Your task to perform on an android device: turn off improve location accuracy Image 0: 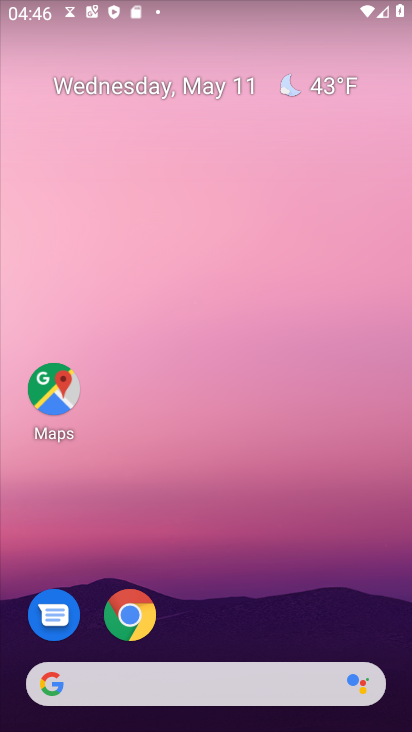
Step 0: drag from (269, 362) to (267, 0)
Your task to perform on an android device: turn off improve location accuracy Image 1: 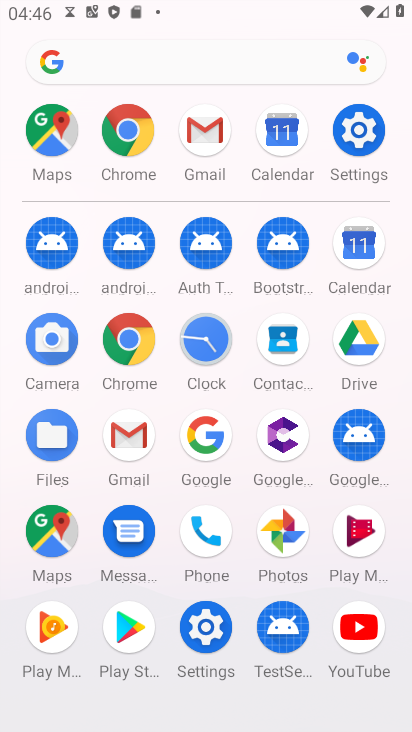
Step 1: drag from (19, 547) to (10, 223)
Your task to perform on an android device: turn off improve location accuracy Image 2: 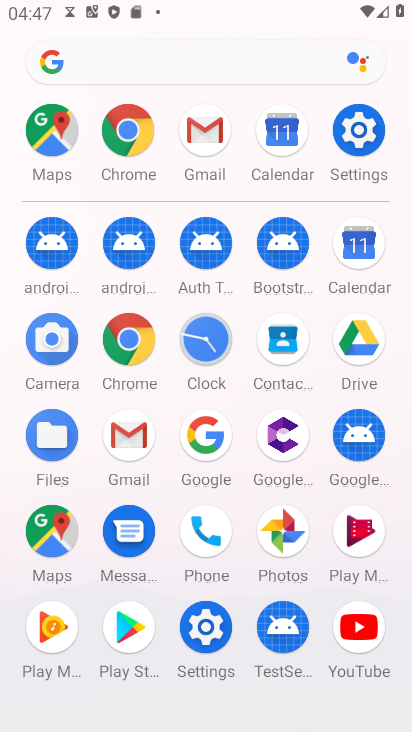
Step 2: drag from (11, 482) to (20, 335)
Your task to perform on an android device: turn off improve location accuracy Image 3: 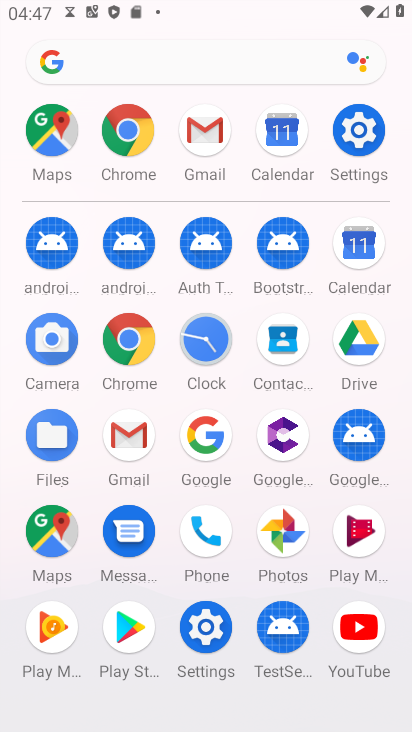
Step 3: drag from (7, 514) to (8, 269)
Your task to perform on an android device: turn off improve location accuracy Image 4: 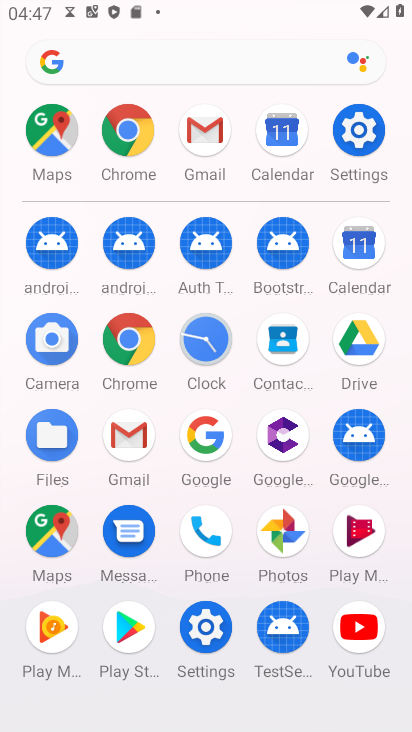
Step 4: drag from (17, 521) to (36, 246)
Your task to perform on an android device: turn off improve location accuracy Image 5: 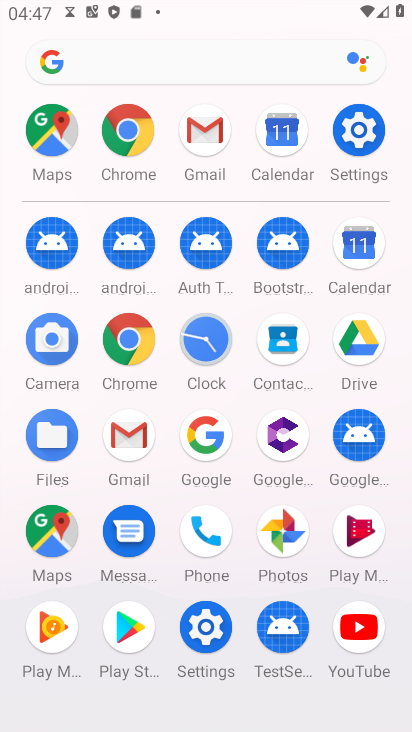
Step 5: drag from (14, 505) to (22, 289)
Your task to perform on an android device: turn off improve location accuracy Image 6: 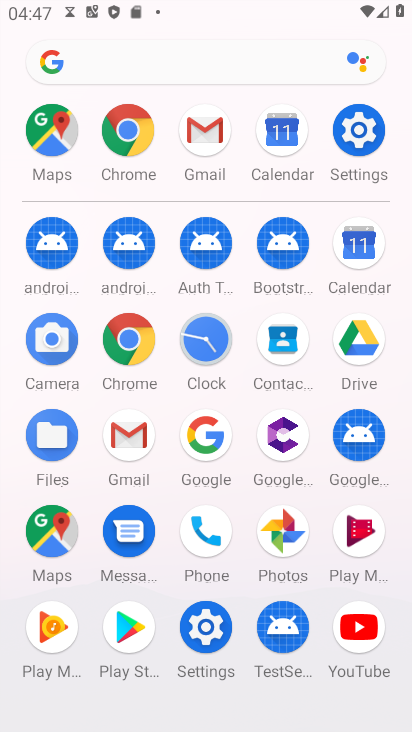
Step 6: drag from (12, 561) to (28, 310)
Your task to perform on an android device: turn off improve location accuracy Image 7: 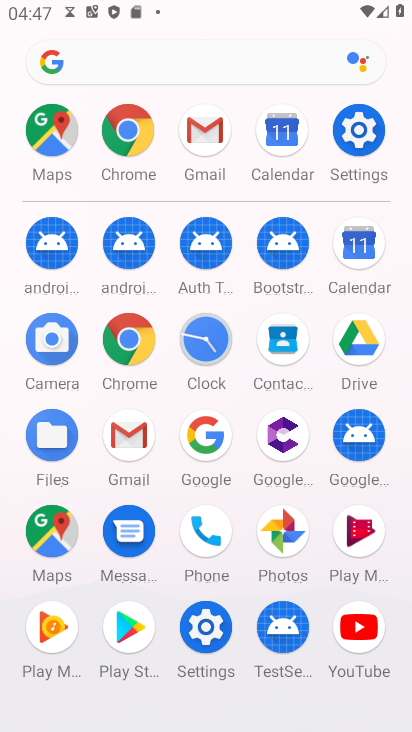
Step 7: click (203, 624)
Your task to perform on an android device: turn off improve location accuracy Image 8: 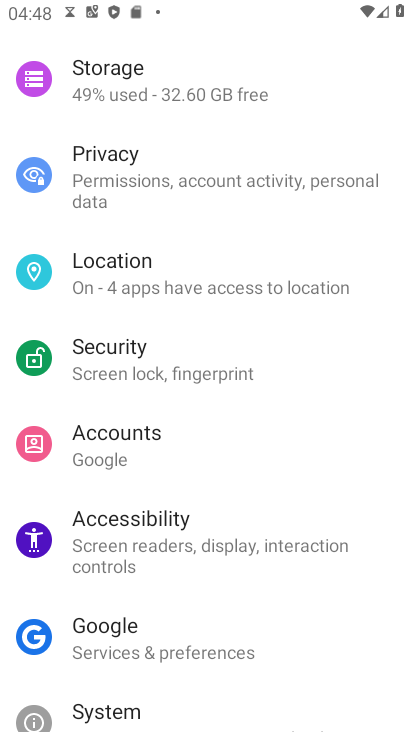
Step 8: drag from (239, 572) to (257, 137)
Your task to perform on an android device: turn off improve location accuracy Image 9: 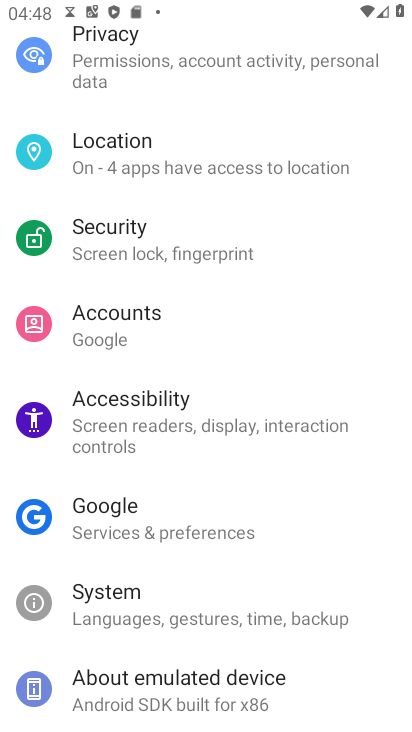
Step 9: drag from (310, 534) to (281, 112)
Your task to perform on an android device: turn off improve location accuracy Image 10: 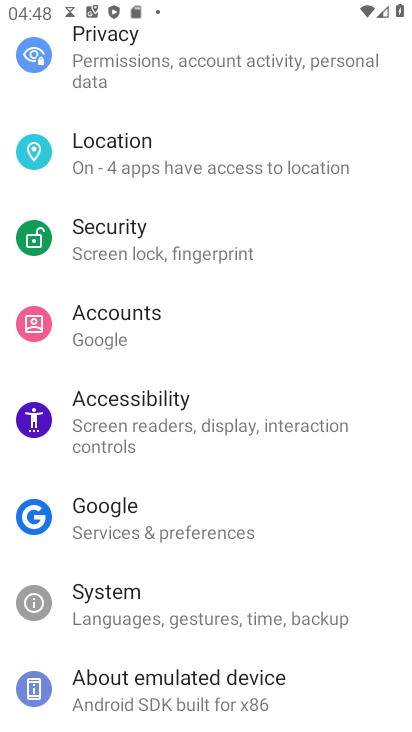
Step 10: drag from (305, 523) to (290, 138)
Your task to perform on an android device: turn off improve location accuracy Image 11: 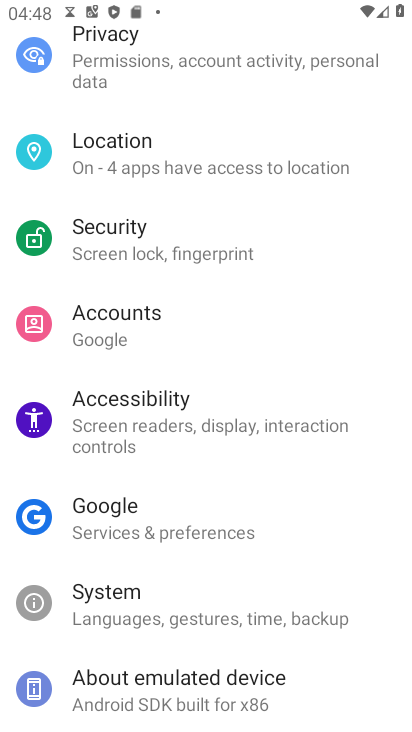
Step 11: click (192, 148)
Your task to perform on an android device: turn off improve location accuracy Image 12: 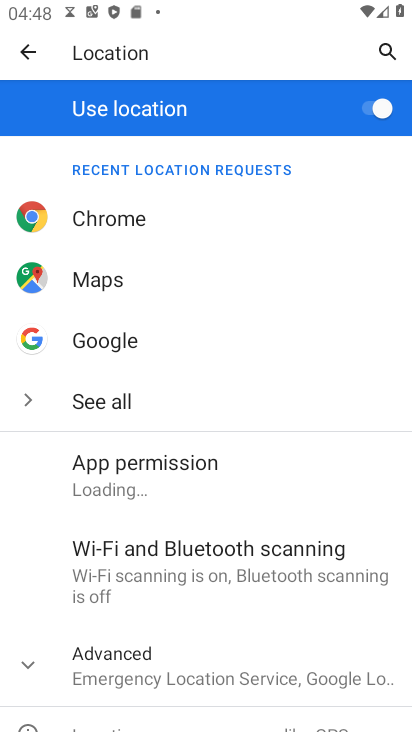
Step 12: drag from (224, 513) to (241, 168)
Your task to perform on an android device: turn off improve location accuracy Image 13: 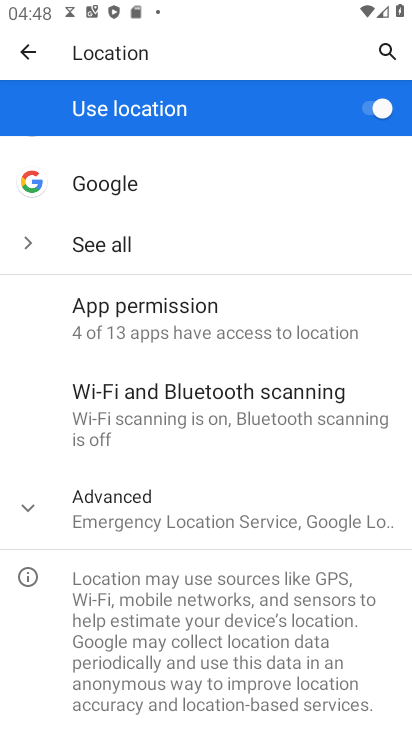
Step 13: click (24, 507)
Your task to perform on an android device: turn off improve location accuracy Image 14: 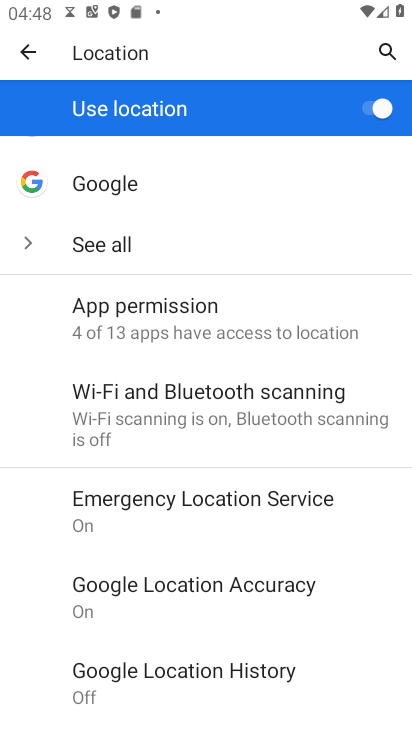
Step 14: click (222, 573)
Your task to perform on an android device: turn off improve location accuracy Image 15: 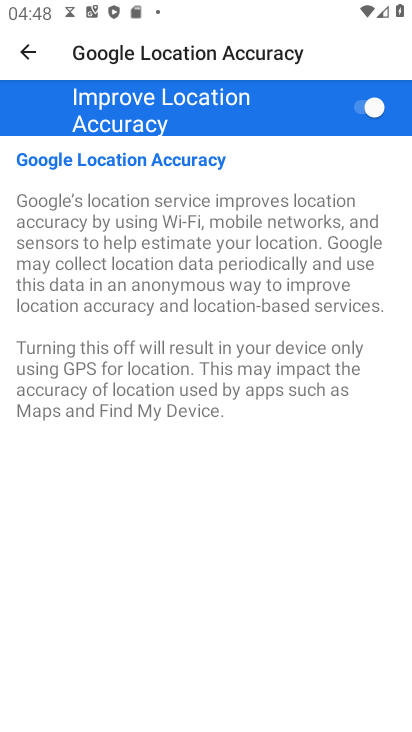
Step 15: click (370, 101)
Your task to perform on an android device: turn off improve location accuracy Image 16: 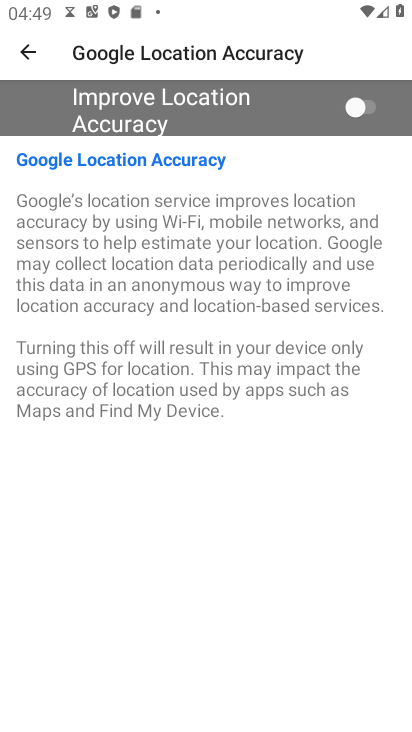
Step 16: task complete